Your task to perform on an android device: change alarm snooze length Image 0: 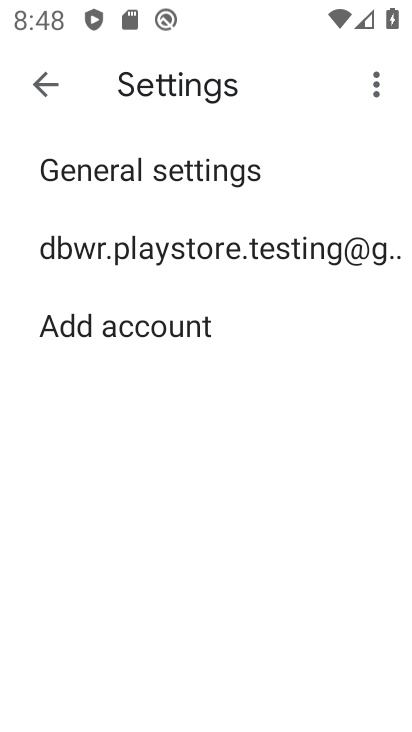
Step 0: press home button
Your task to perform on an android device: change alarm snooze length Image 1: 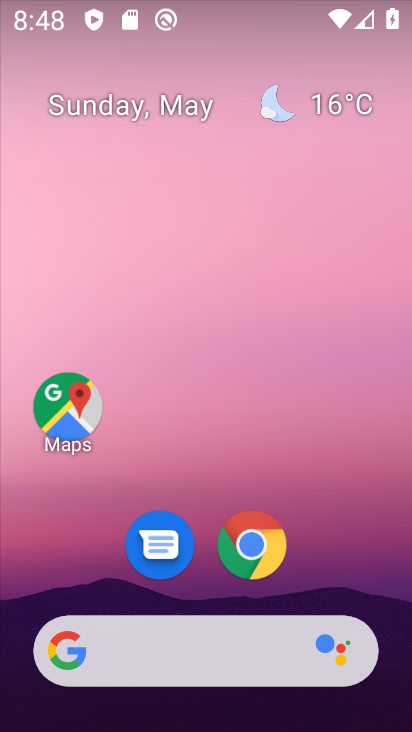
Step 1: drag from (298, 482) to (253, 98)
Your task to perform on an android device: change alarm snooze length Image 2: 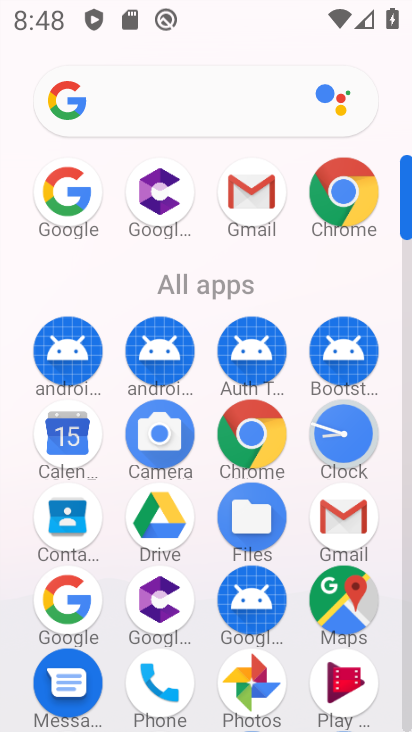
Step 2: click (342, 420)
Your task to perform on an android device: change alarm snooze length Image 3: 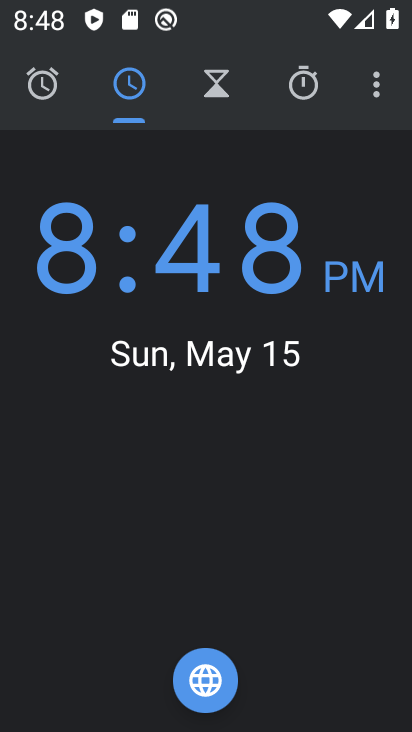
Step 3: click (381, 90)
Your task to perform on an android device: change alarm snooze length Image 4: 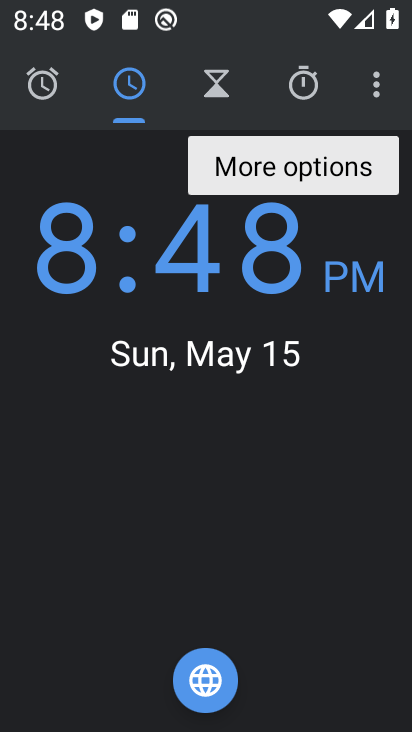
Step 4: click (379, 90)
Your task to perform on an android device: change alarm snooze length Image 5: 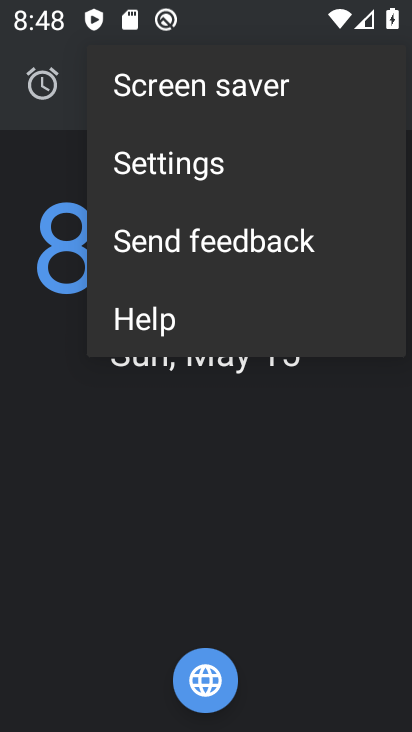
Step 5: click (217, 167)
Your task to perform on an android device: change alarm snooze length Image 6: 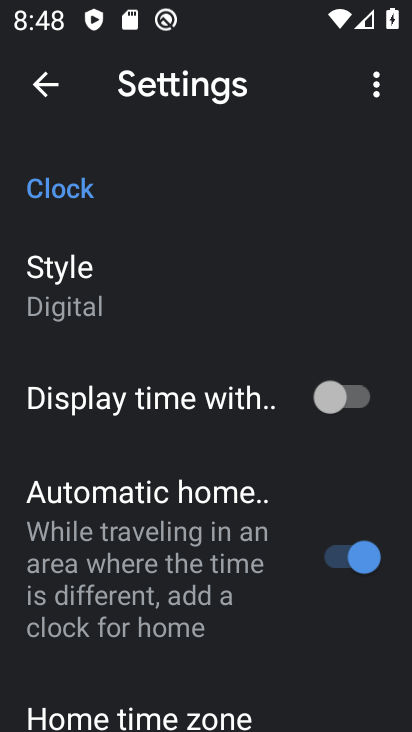
Step 6: drag from (284, 630) to (255, 175)
Your task to perform on an android device: change alarm snooze length Image 7: 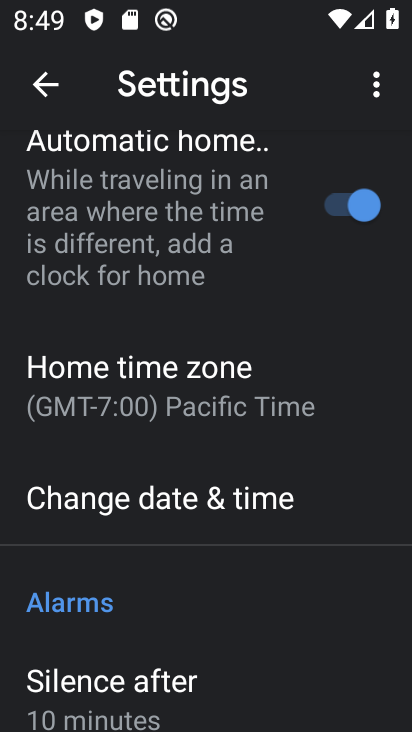
Step 7: drag from (244, 597) to (207, 113)
Your task to perform on an android device: change alarm snooze length Image 8: 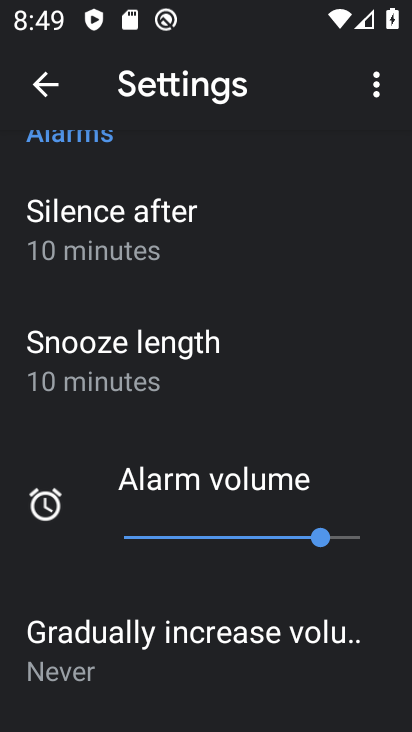
Step 8: click (137, 342)
Your task to perform on an android device: change alarm snooze length Image 9: 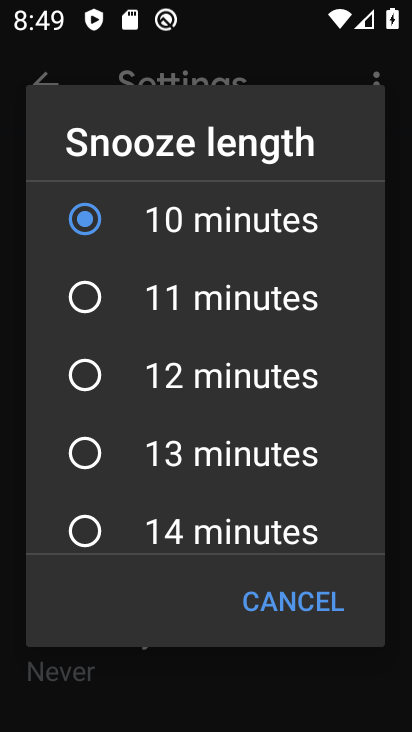
Step 9: click (182, 310)
Your task to perform on an android device: change alarm snooze length Image 10: 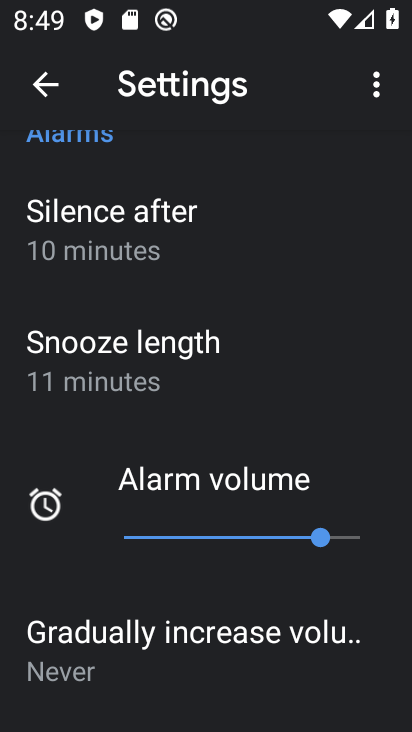
Step 10: task complete